Your task to perform on an android device: change timer sound Image 0: 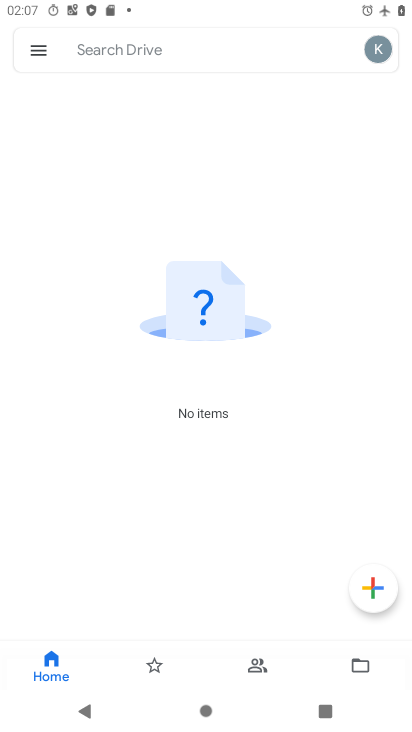
Step 0: drag from (181, 619) to (190, 212)
Your task to perform on an android device: change timer sound Image 1: 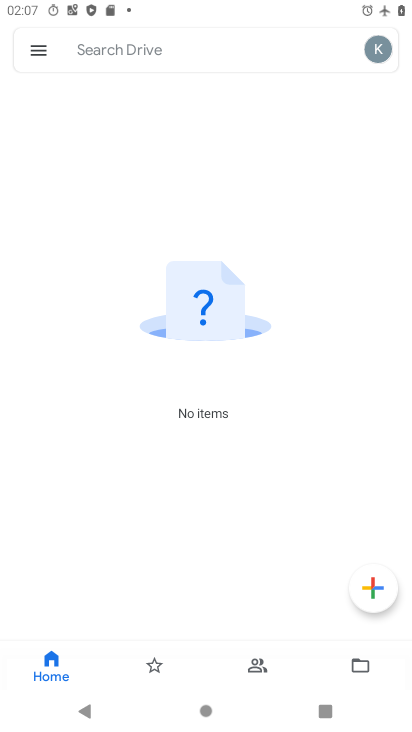
Step 1: press home button
Your task to perform on an android device: change timer sound Image 2: 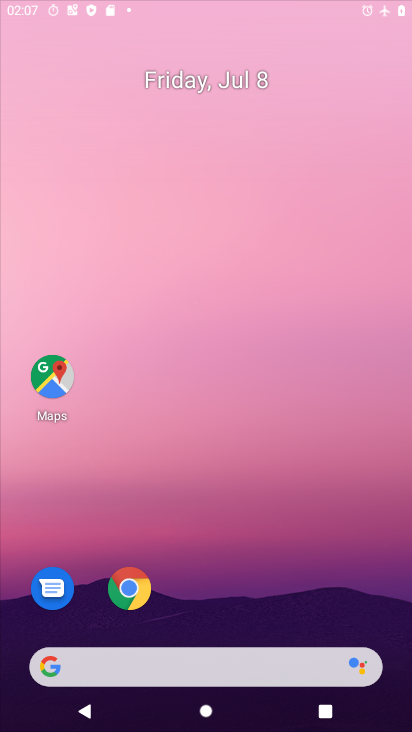
Step 2: drag from (176, 655) to (161, 199)
Your task to perform on an android device: change timer sound Image 3: 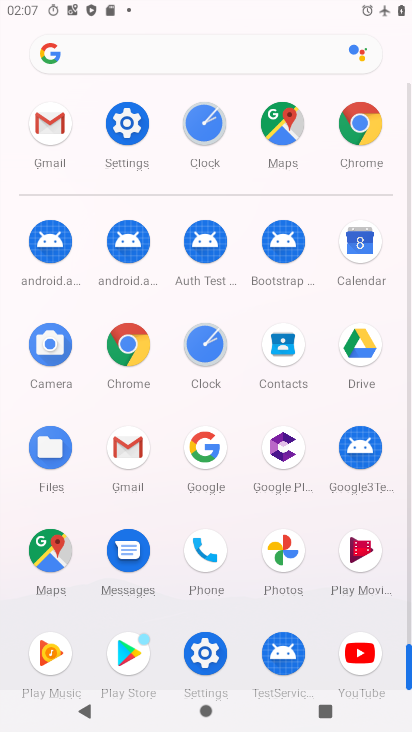
Step 3: click (196, 348)
Your task to perform on an android device: change timer sound Image 4: 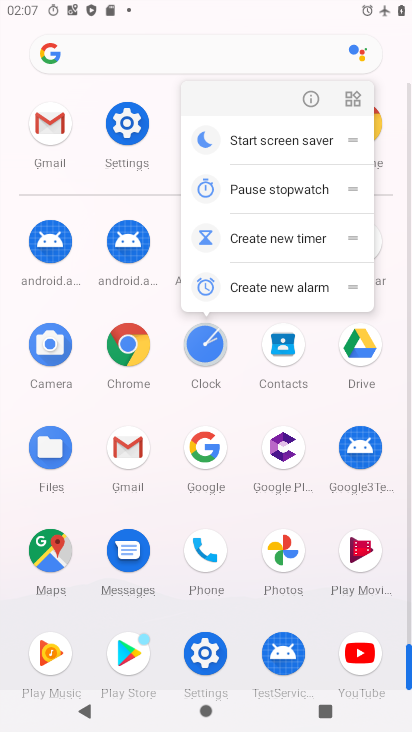
Step 4: click (304, 93)
Your task to perform on an android device: change timer sound Image 5: 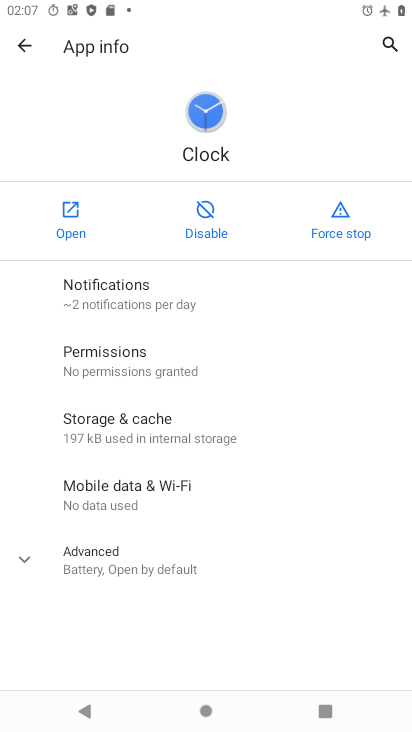
Step 5: click (69, 210)
Your task to perform on an android device: change timer sound Image 6: 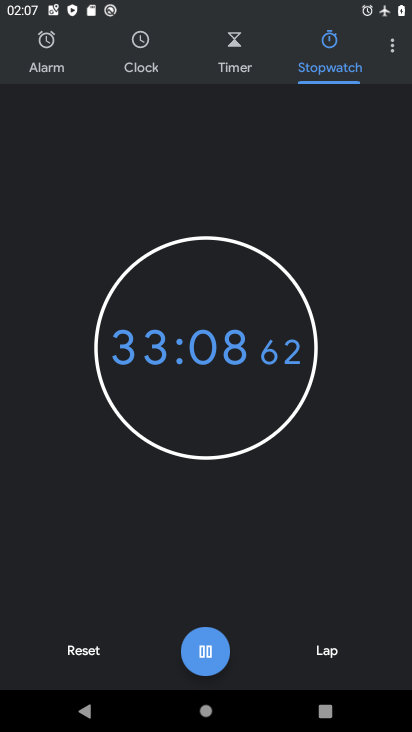
Step 6: click (392, 43)
Your task to perform on an android device: change timer sound Image 7: 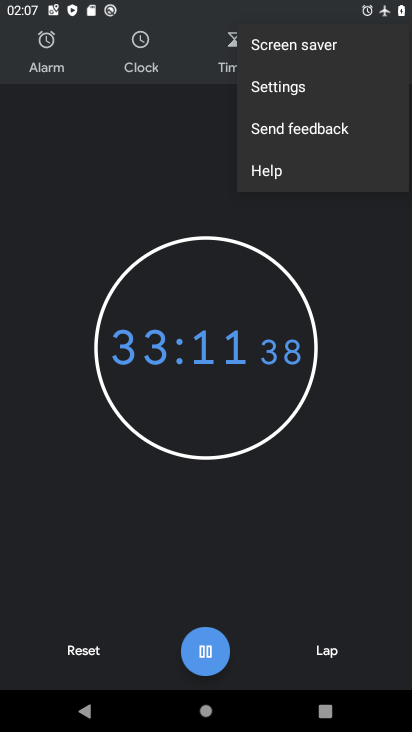
Step 7: click (278, 92)
Your task to perform on an android device: change timer sound Image 8: 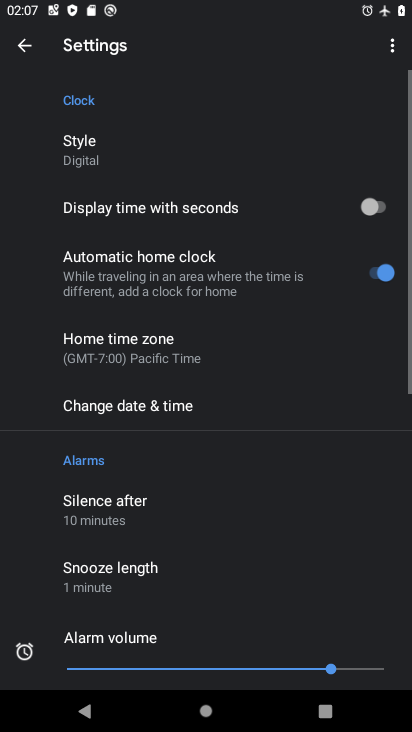
Step 8: drag from (194, 499) to (172, 99)
Your task to perform on an android device: change timer sound Image 9: 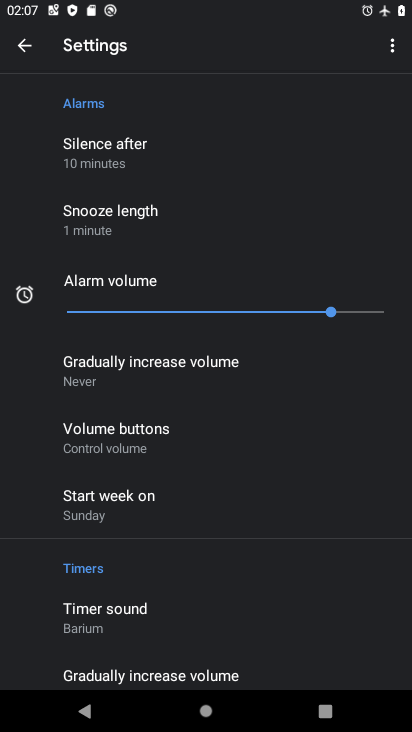
Step 9: drag from (163, 517) to (227, 292)
Your task to perform on an android device: change timer sound Image 10: 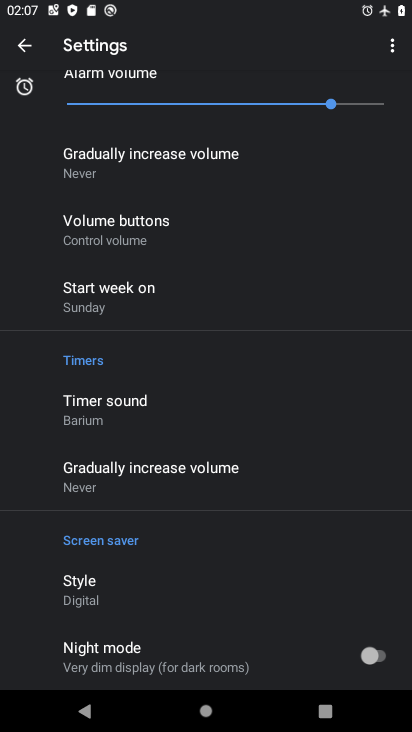
Step 10: click (161, 416)
Your task to perform on an android device: change timer sound Image 11: 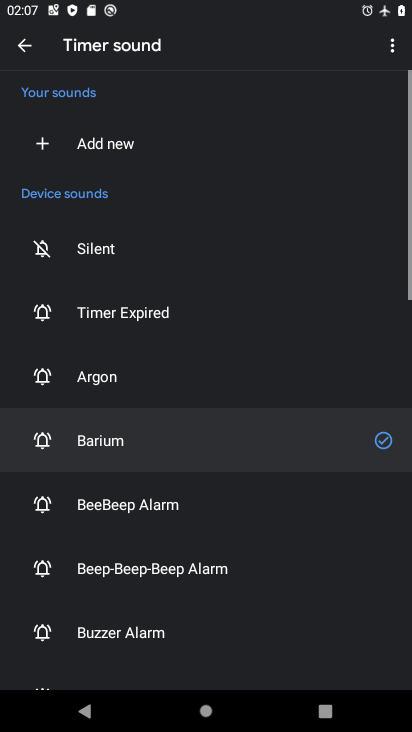
Step 11: task complete